Your task to perform on an android device: Go to Android settings Image 0: 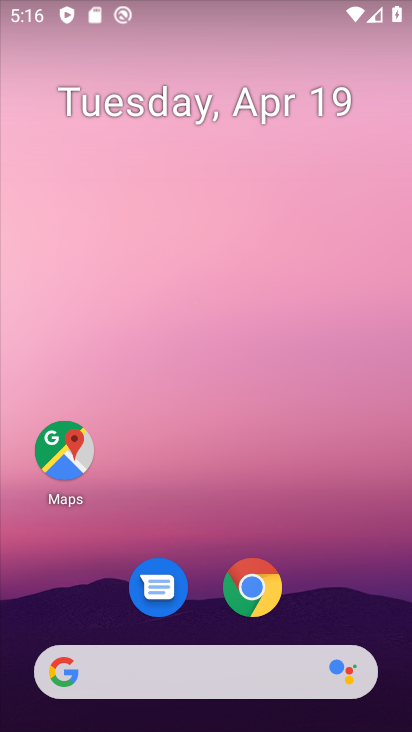
Step 0: drag from (316, 21) to (135, 686)
Your task to perform on an android device: Go to Android settings Image 1: 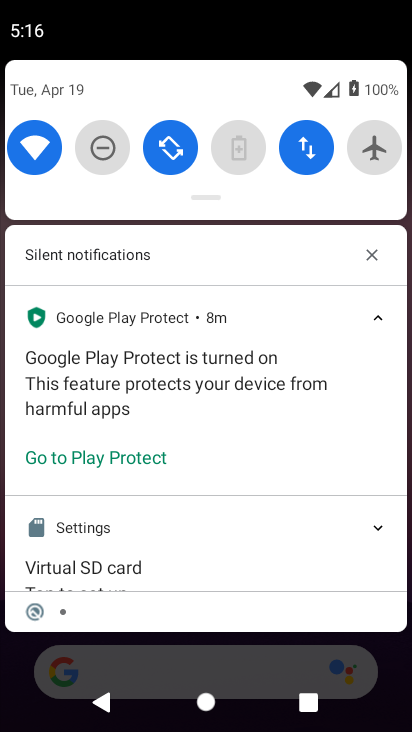
Step 1: drag from (220, 98) to (209, 731)
Your task to perform on an android device: Go to Android settings Image 2: 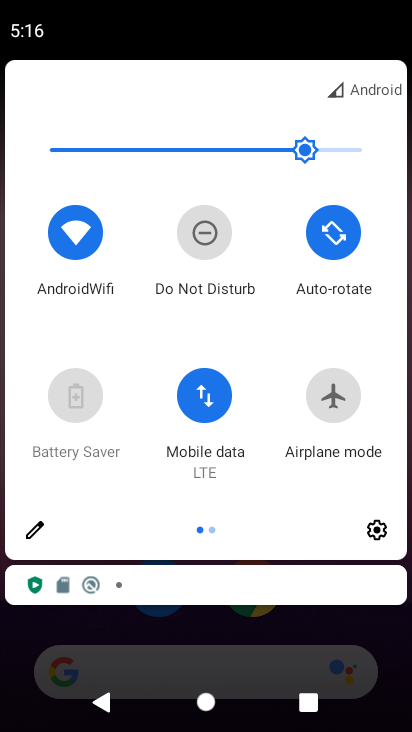
Step 2: click (388, 525)
Your task to perform on an android device: Go to Android settings Image 3: 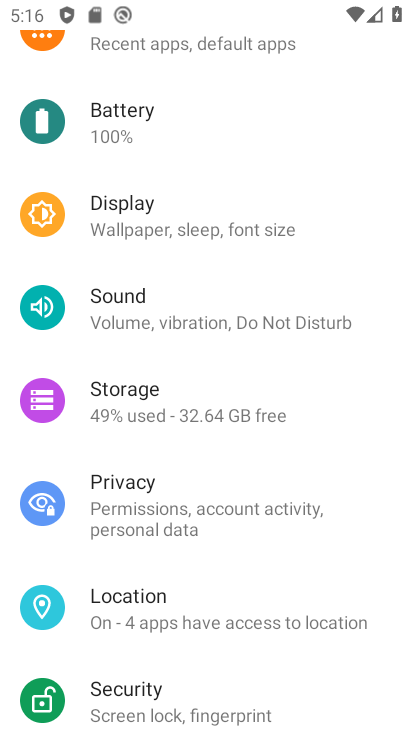
Step 3: drag from (189, 62) to (233, 533)
Your task to perform on an android device: Go to Android settings Image 4: 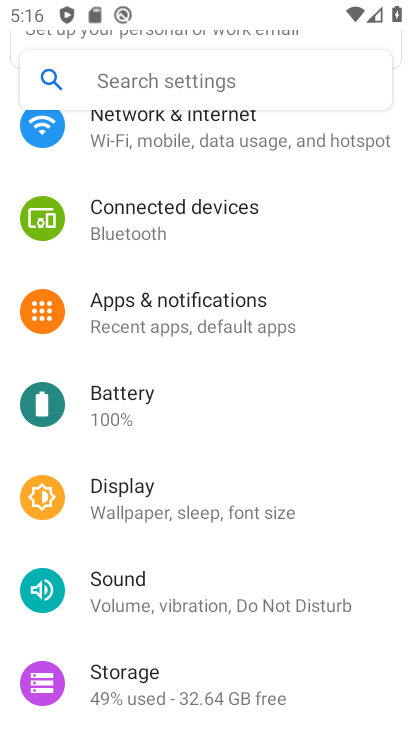
Step 4: click (190, 68)
Your task to perform on an android device: Go to Android settings Image 5: 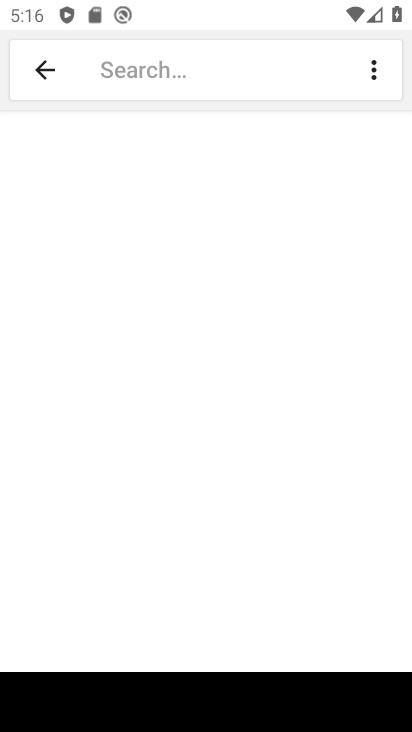
Step 5: type "android"
Your task to perform on an android device: Go to Android settings Image 6: 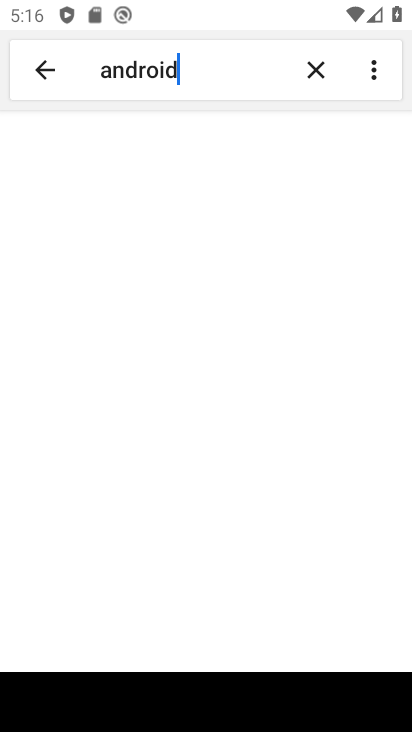
Step 6: type ""
Your task to perform on an android device: Go to Android settings Image 7: 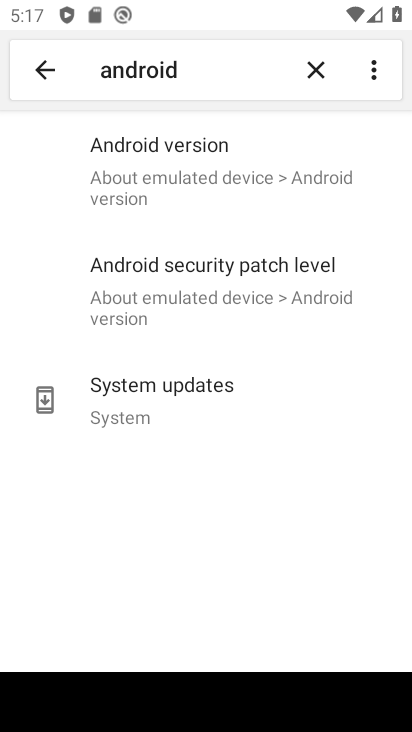
Step 7: click (182, 282)
Your task to perform on an android device: Go to Android settings Image 8: 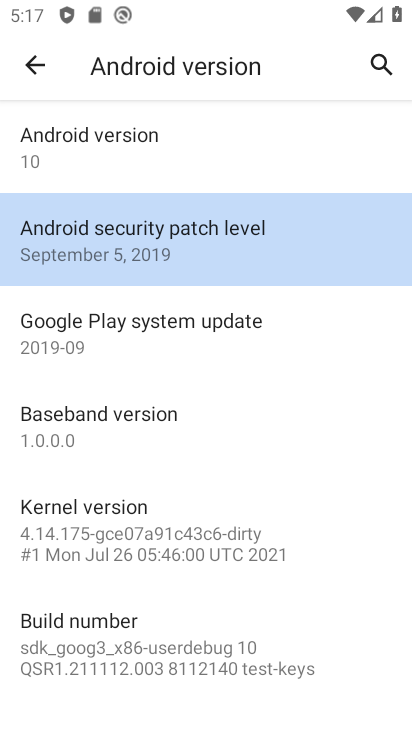
Step 8: task complete